Your task to perform on an android device: When is my next appointment? Image 0: 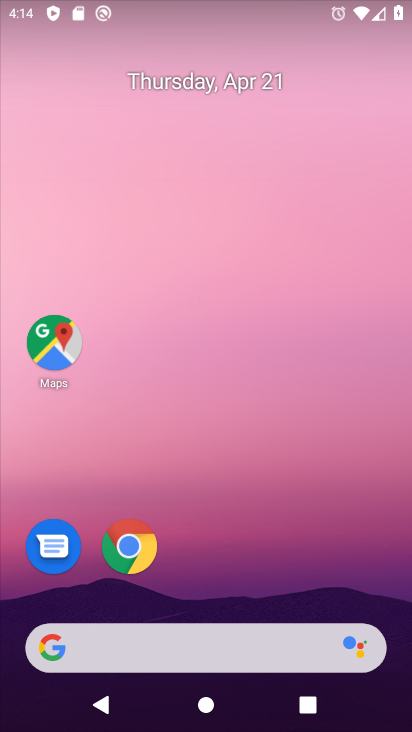
Step 0: drag from (301, 551) to (202, 34)
Your task to perform on an android device: When is my next appointment? Image 1: 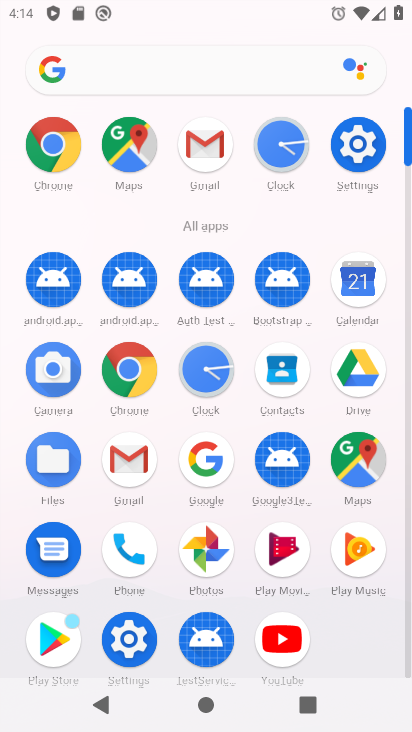
Step 1: click (367, 280)
Your task to perform on an android device: When is my next appointment? Image 2: 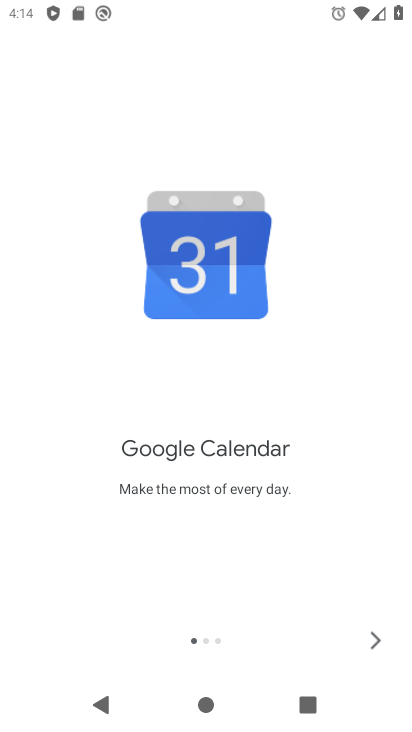
Step 2: click (373, 639)
Your task to perform on an android device: When is my next appointment? Image 3: 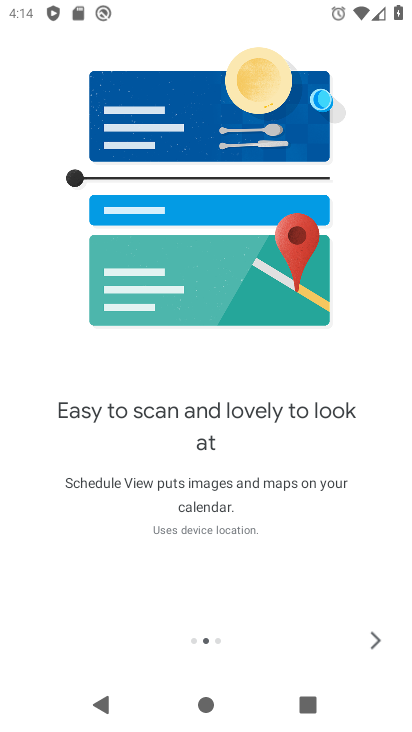
Step 3: click (373, 639)
Your task to perform on an android device: When is my next appointment? Image 4: 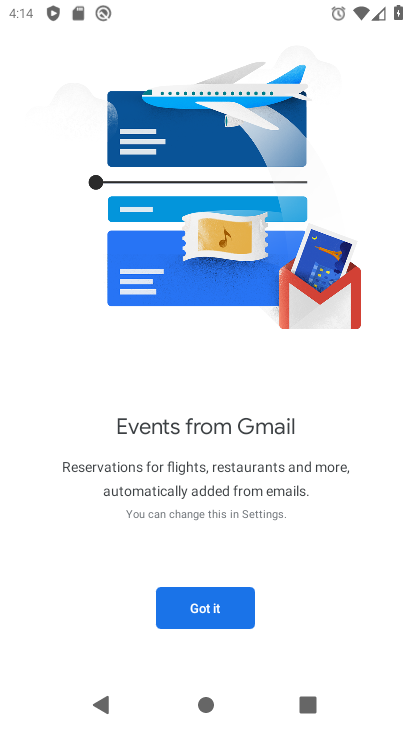
Step 4: click (220, 610)
Your task to perform on an android device: When is my next appointment? Image 5: 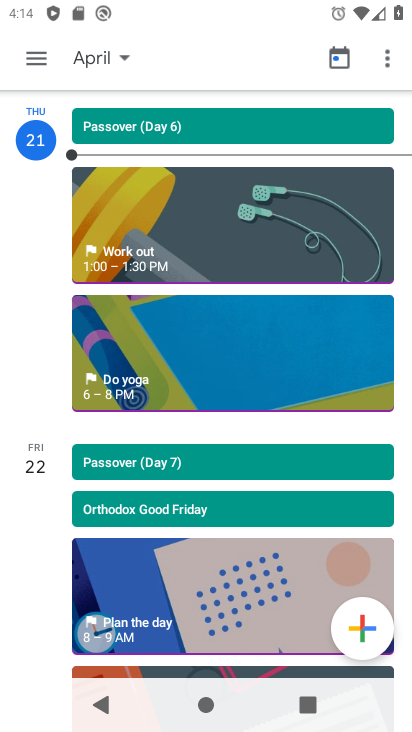
Step 5: task complete